Your task to perform on an android device: turn pop-ups off in chrome Image 0: 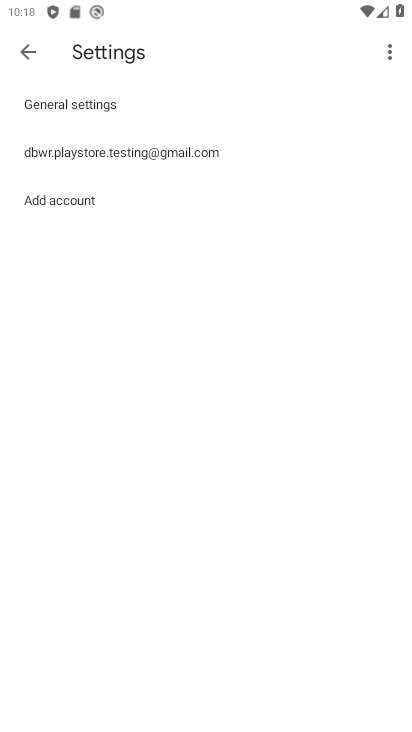
Step 0: drag from (187, 659) to (277, 113)
Your task to perform on an android device: turn pop-ups off in chrome Image 1: 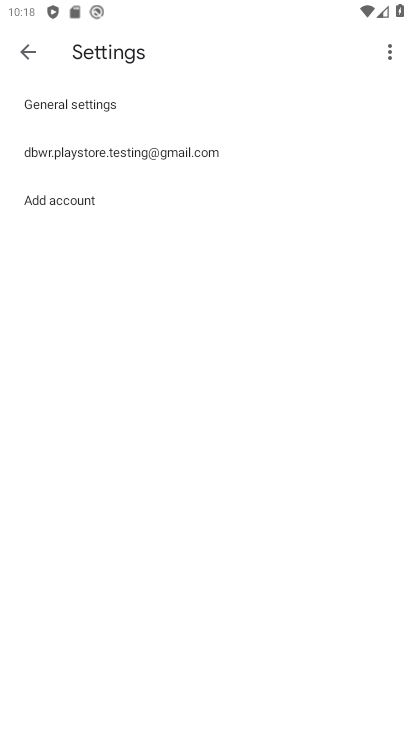
Step 1: press back button
Your task to perform on an android device: turn pop-ups off in chrome Image 2: 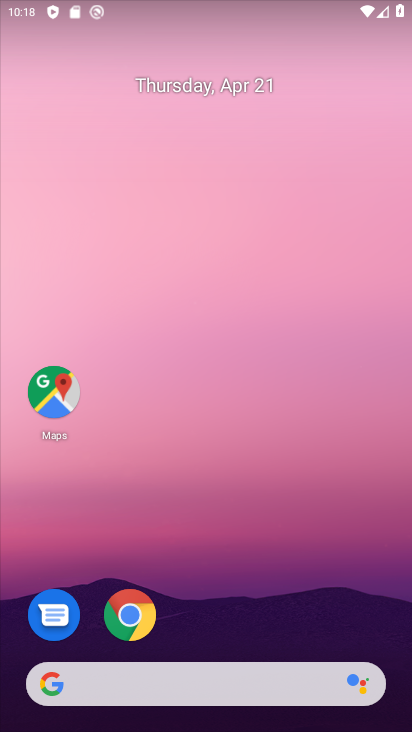
Step 2: click (131, 631)
Your task to perform on an android device: turn pop-ups off in chrome Image 3: 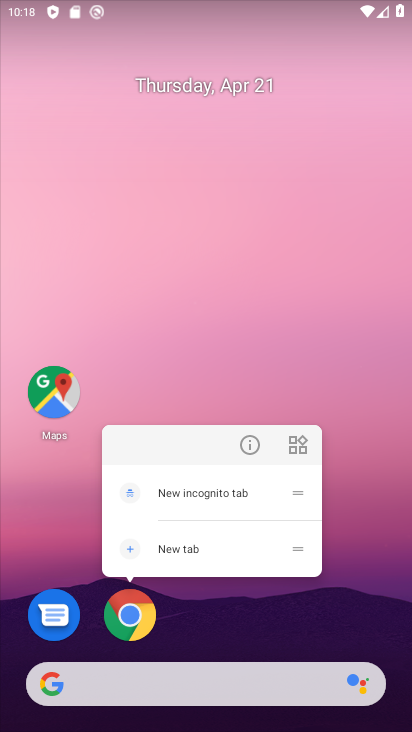
Step 3: click (135, 621)
Your task to perform on an android device: turn pop-ups off in chrome Image 4: 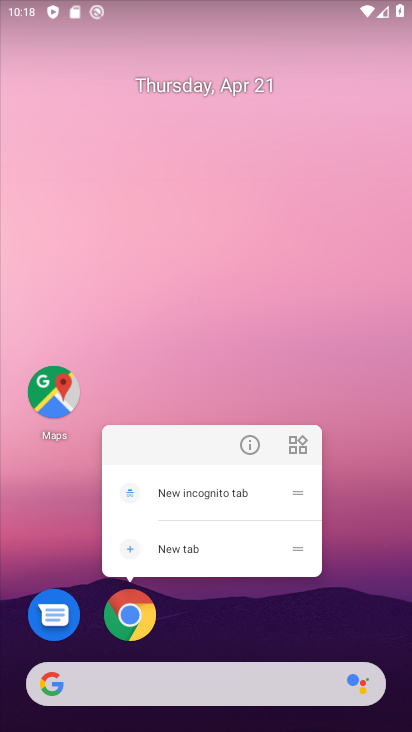
Step 4: click (136, 610)
Your task to perform on an android device: turn pop-ups off in chrome Image 5: 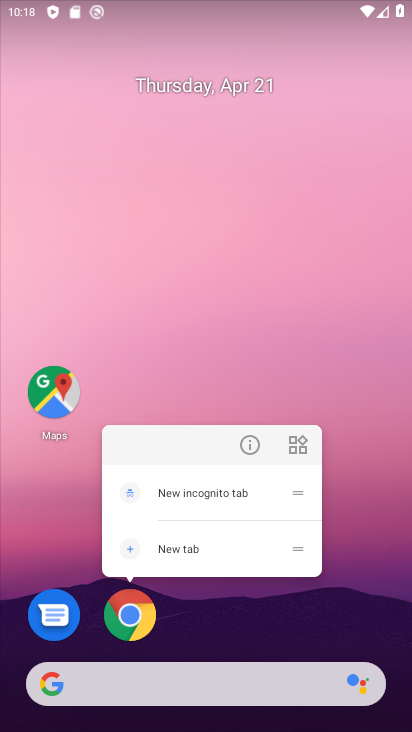
Step 5: click (134, 608)
Your task to perform on an android device: turn pop-ups off in chrome Image 6: 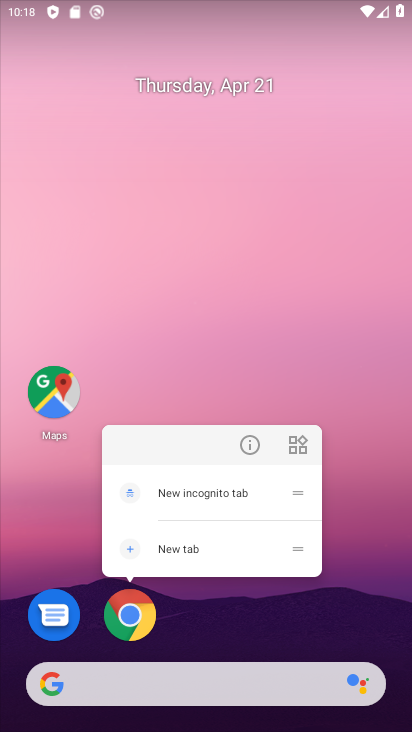
Step 6: click (133, 617)
Your task to perform on an android device: turn pop-ups off in chrome Image 7: 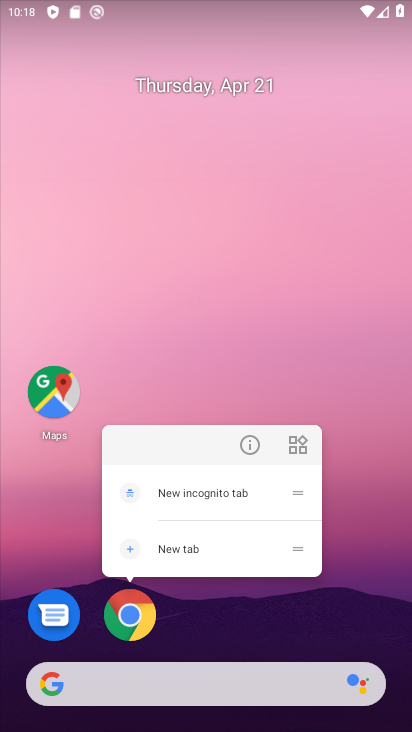
Step 7: click (133, 617)
Your task to perform on an android device: turn pop-ups off in chrome Image 8: 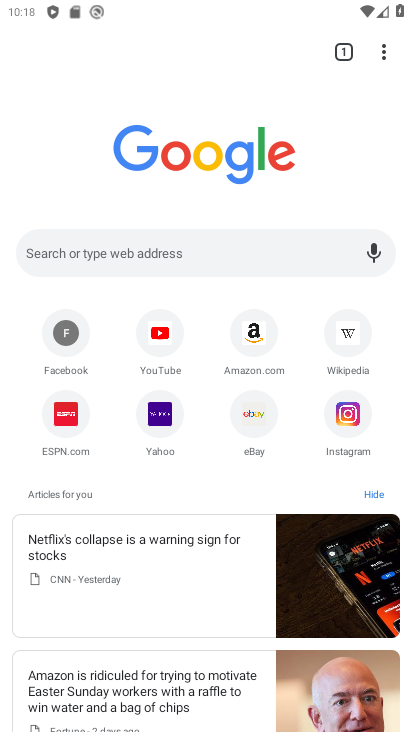
Step 8: drag from (379, 63) to (266, 434)
Your task to perform on an android device: turn pop-ups off in chrome Image 9: 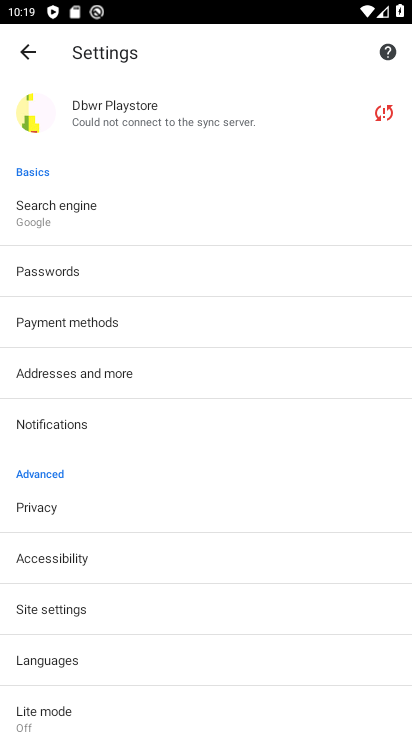
Step 9: click (134, 606)
Your task to perform on an android device: turn pop-ups off in chrome Image 10: 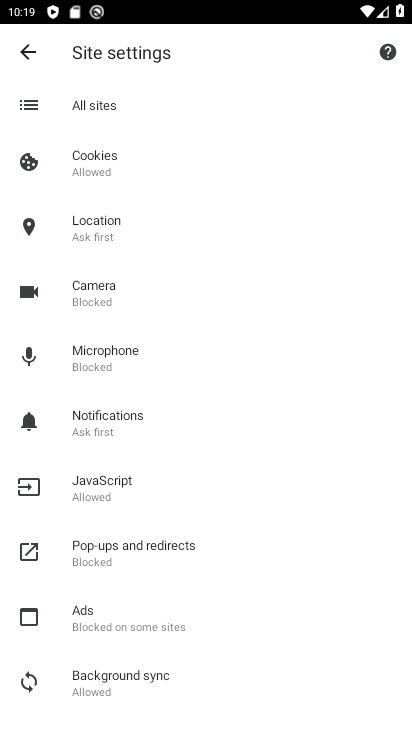
Step 10: click (181, 547)
Your task to perform on an android device: turn pop-ups off in chrome Image 11: 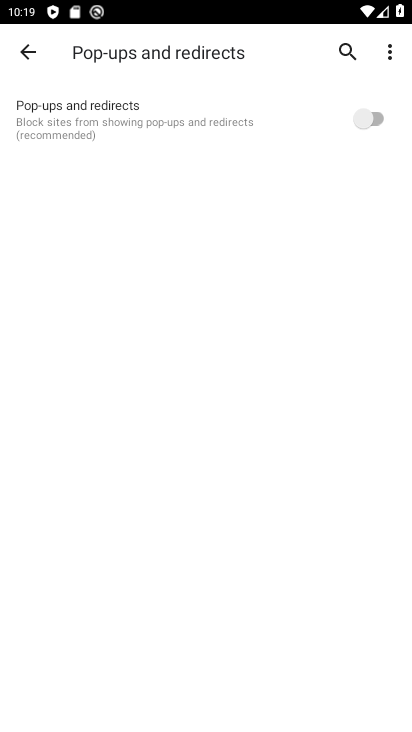
Step 11: task complete